Your task to perform on an android device: open app "VLC for Android" (install if not already installed), go to login, and select forgot password Image 0: 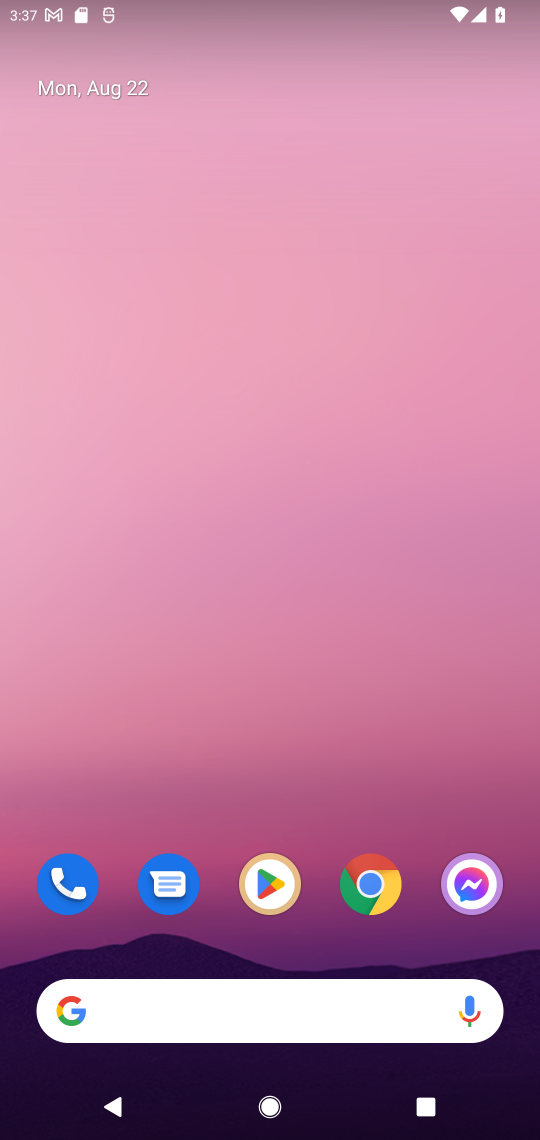
Step 0: click (275, 886)
Your task to perform on an android device: open app "VLC for Android" (install if not already installed), go to login, and select forgot password Image 1: 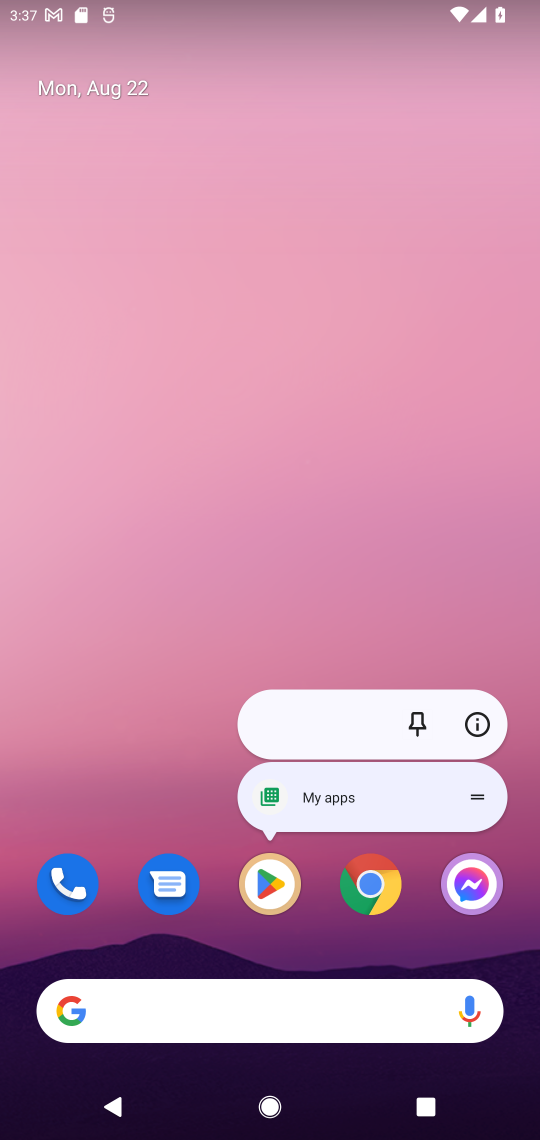
Step 1: click (273, 893)
Your task to perform on an android device: open app "VLC for Android" (install if not already installed), go to login, and select forgot password Image 2: 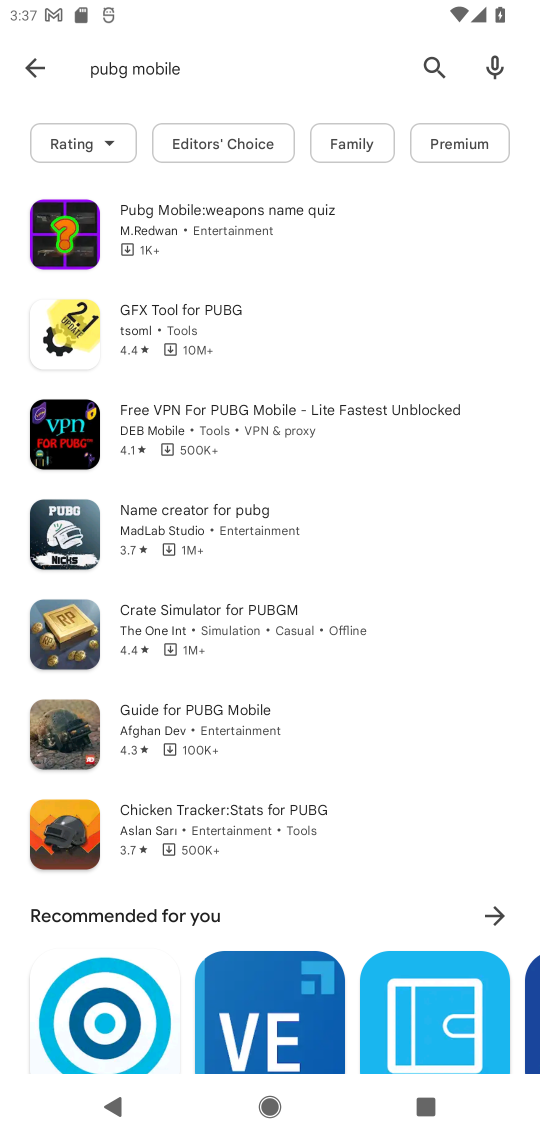
Step 2: click (203, 66)
Your task to perform on an android device: open app "VLC for Android" (install if not already installed), go to login, and select forgot password Image 3: 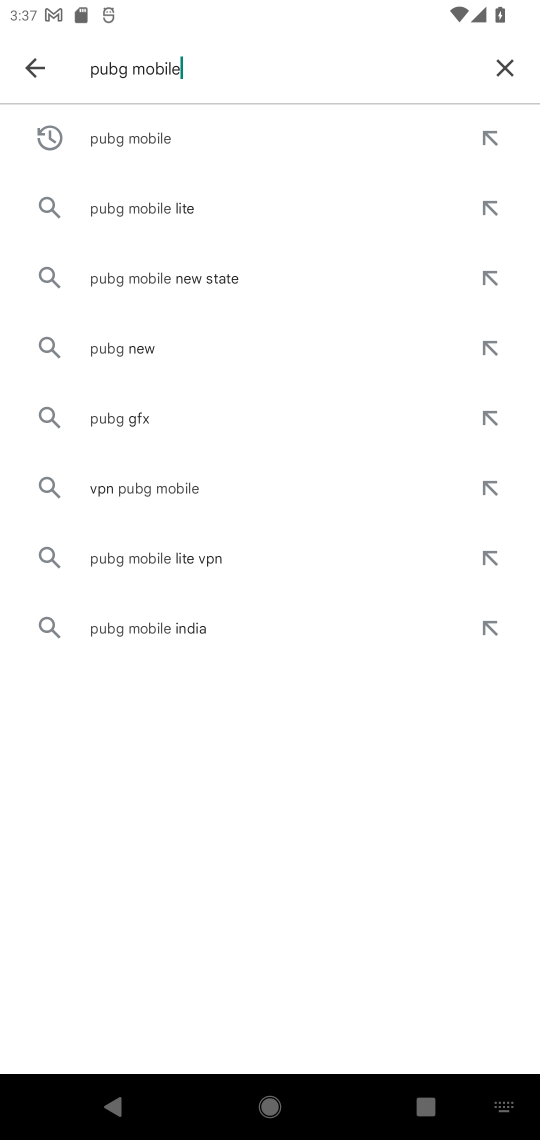
Step 3: click (505, 62)
Your task to perform on an android device: open app "VLC for Android" (install if not already installed), go to login, and select forgot password Image 4: 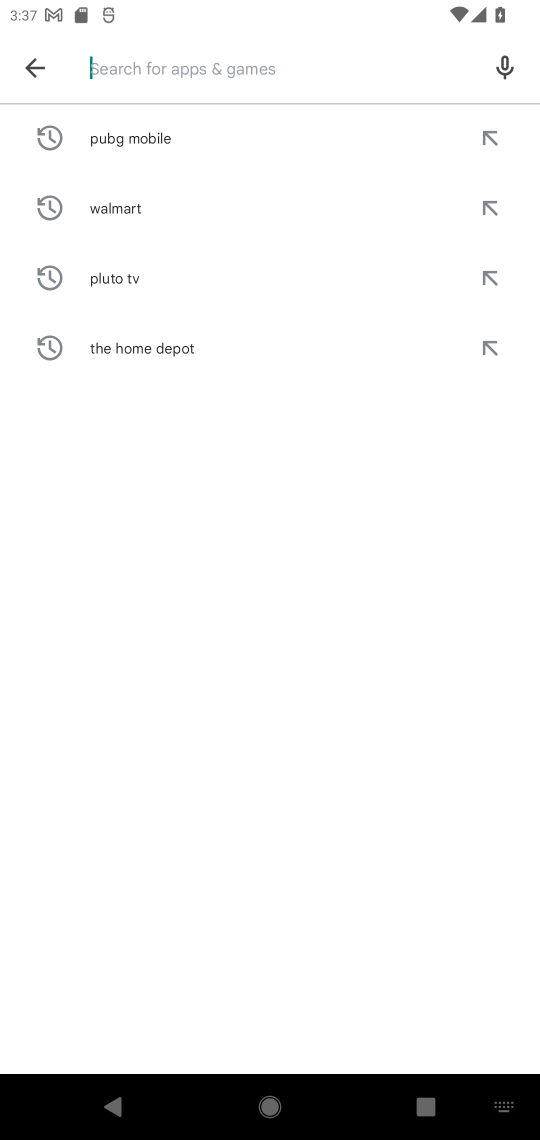
Step 4: type "vlc"
Your task to perform on an android device: open app "VLC for Android" (install if not already installed), go to login, and select forgot password Image 5: 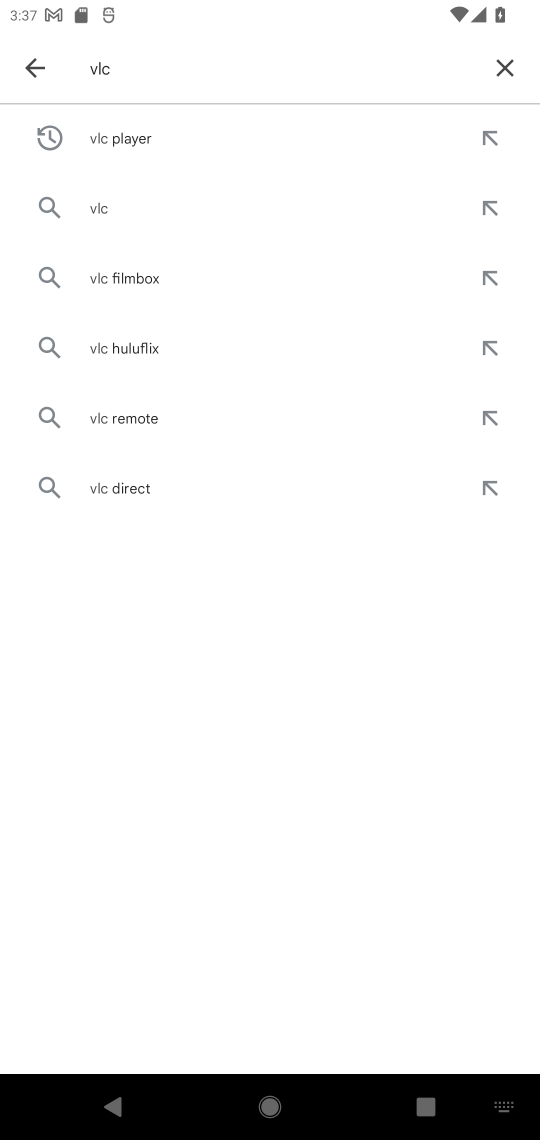
Step 5: click (115, 212)
Your task to perform on an android device: open app "VLC for Android" (install if not already installed), go to login, and select forgot password Image 6: 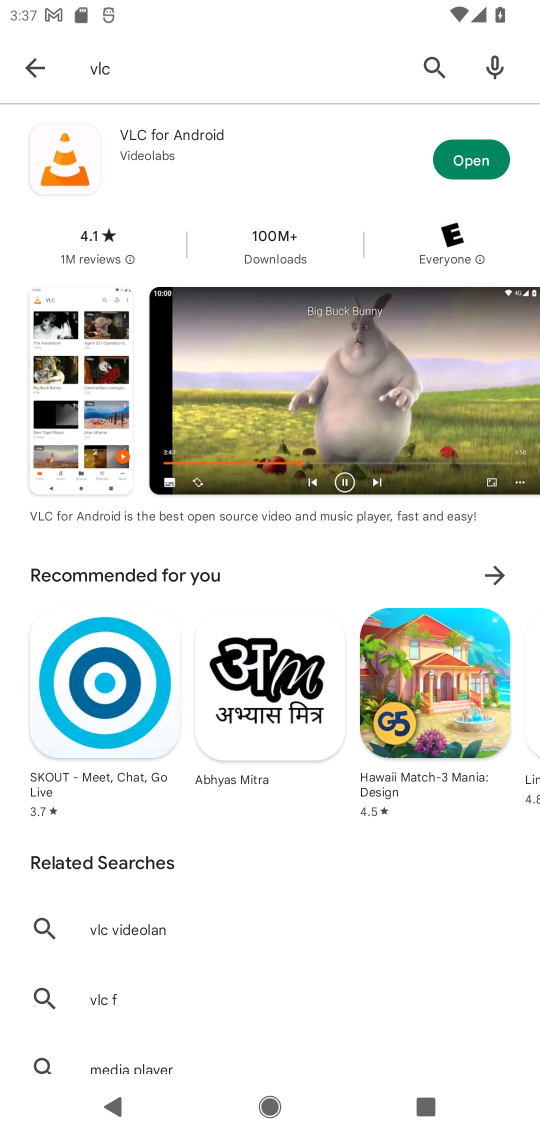
Step 6: click (480, 144)
Your task to perform on an android device: open app "VLC for Android" (install if not already installed), go to login, and select forgot password Image 7: 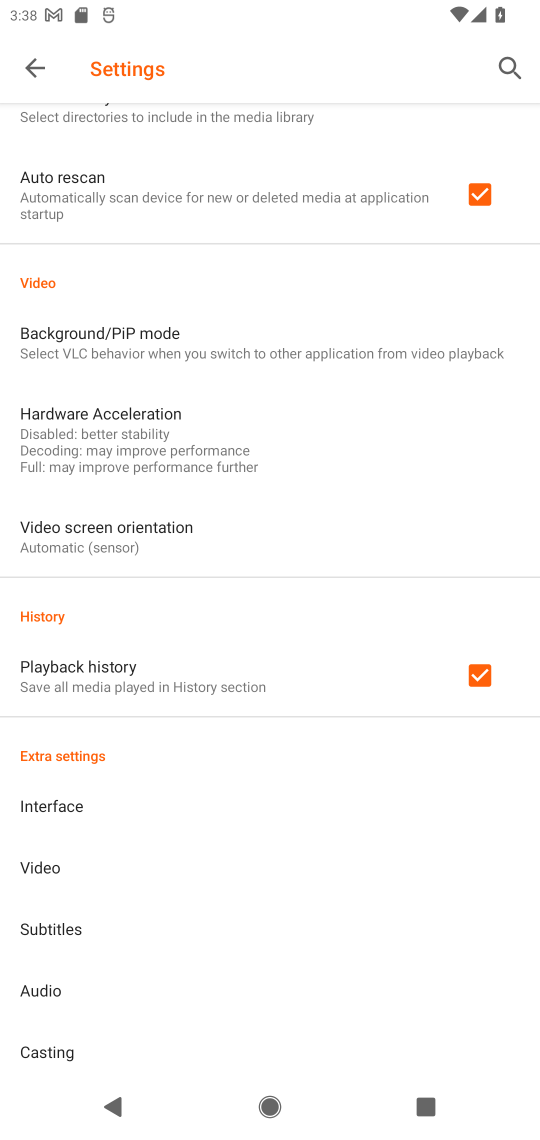
Step 7: drag from (191, 595) to (233, 2)
Your task to perform on an android device: open app "VLC for Android" (install if not already installed), go to login, and select forgot password Image 8: 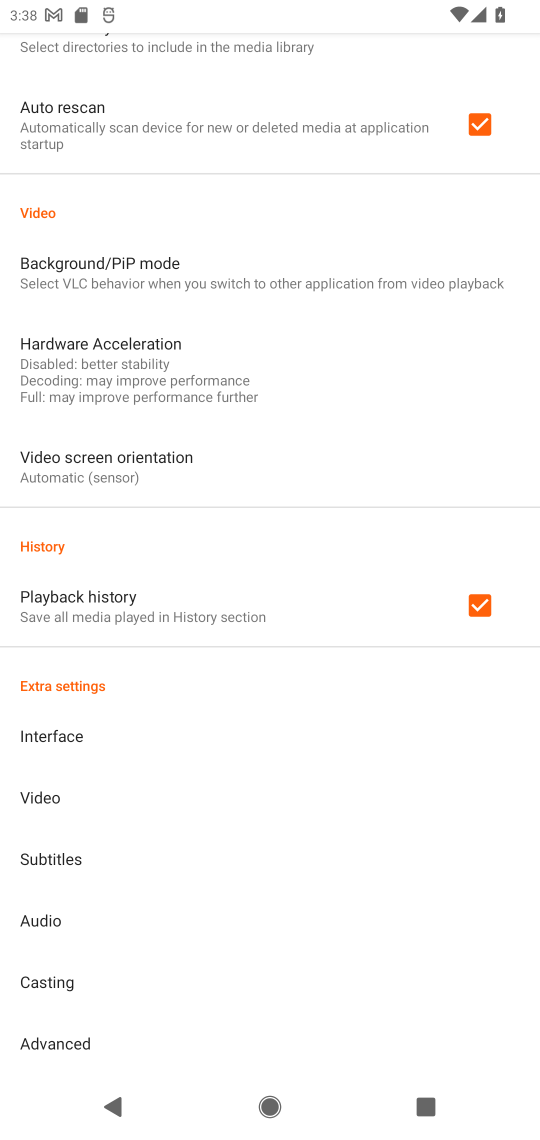
Step 8: drag from (160, 946) to (167, 400)
Your task to perform on an android device: open app "VLC for Android" (install if not already installed), go to login, and select forgot password Image 9: 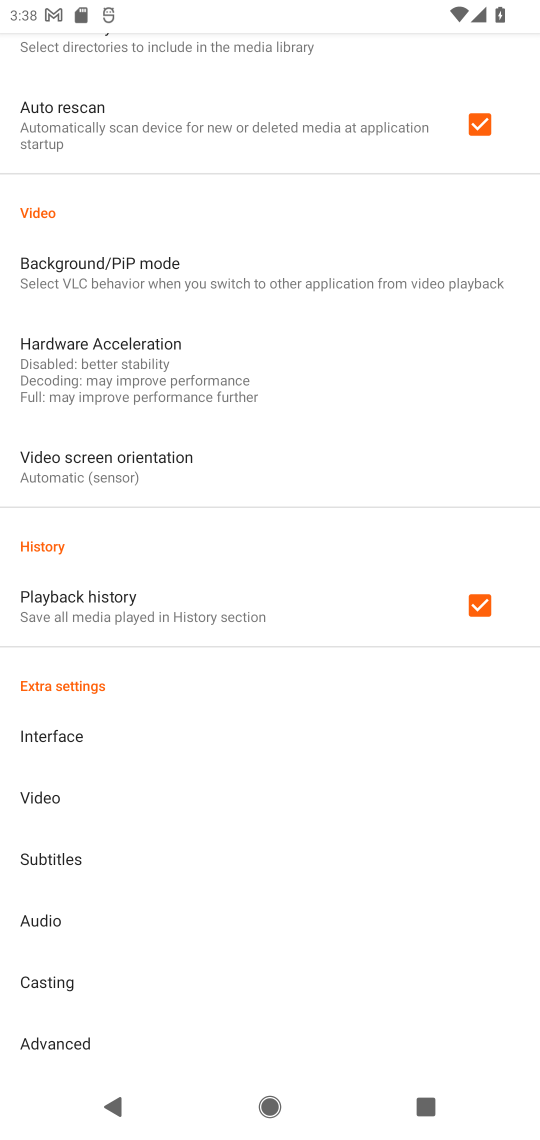
Step 9: drag from (162, 390) to (164, 1129)
Your task to perform on an android device: open app "VLC for Android" (install if not already installed), go to login, and select forgot password Image 10: 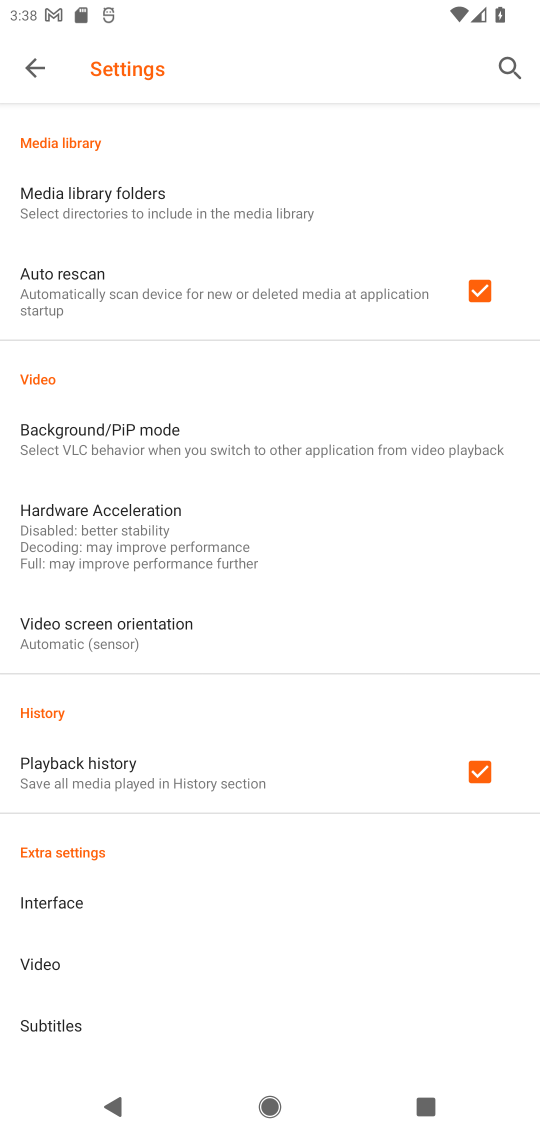
Step 10: click (35, 76)
Your task to perform on an android device: open app "VLC for Android" (install if not already installed), go to login, and select forgot password Image 11: 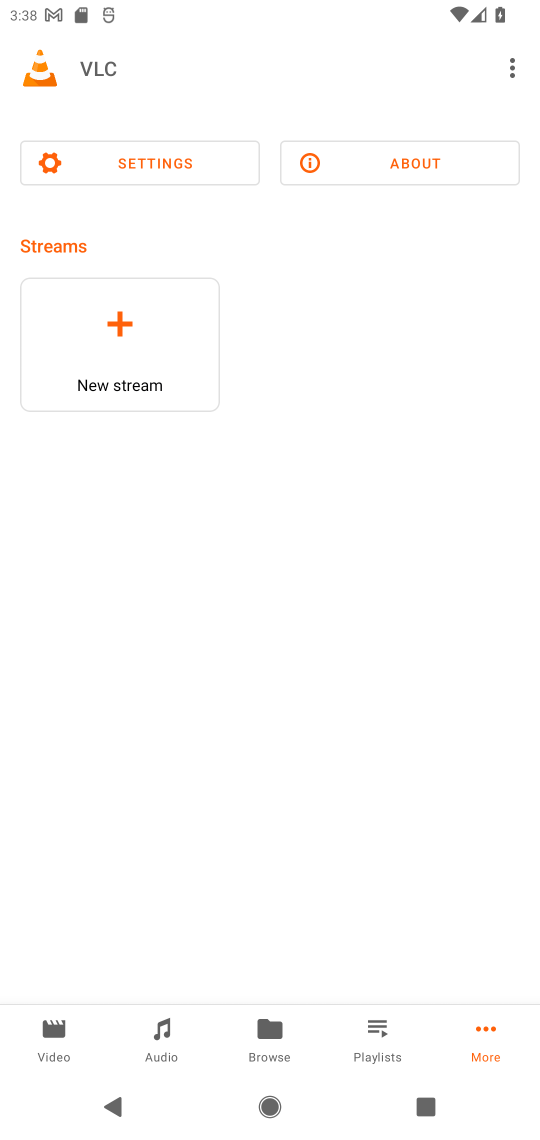
Step 11: click (484, 1036)
Your task to perform on an android device: open app "VLC for Android" (install if not already installed), go to login, and select forgot password Image 12: 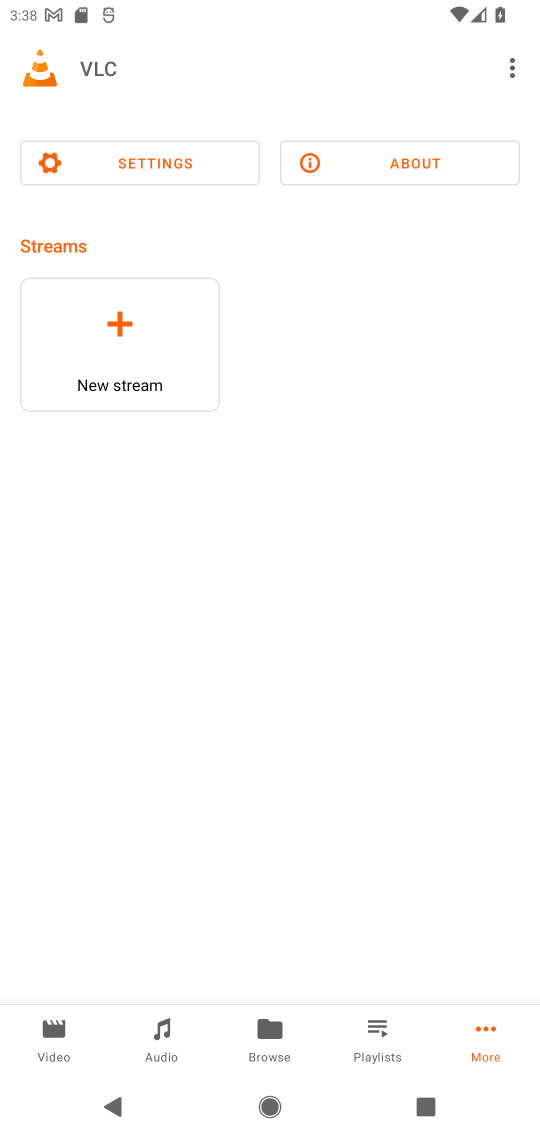
Step 12: click (511, 61)
Your task to perform on an android device: open app "VLC for Android" (install if not already installed), go to login, and select forgot password Image 13: 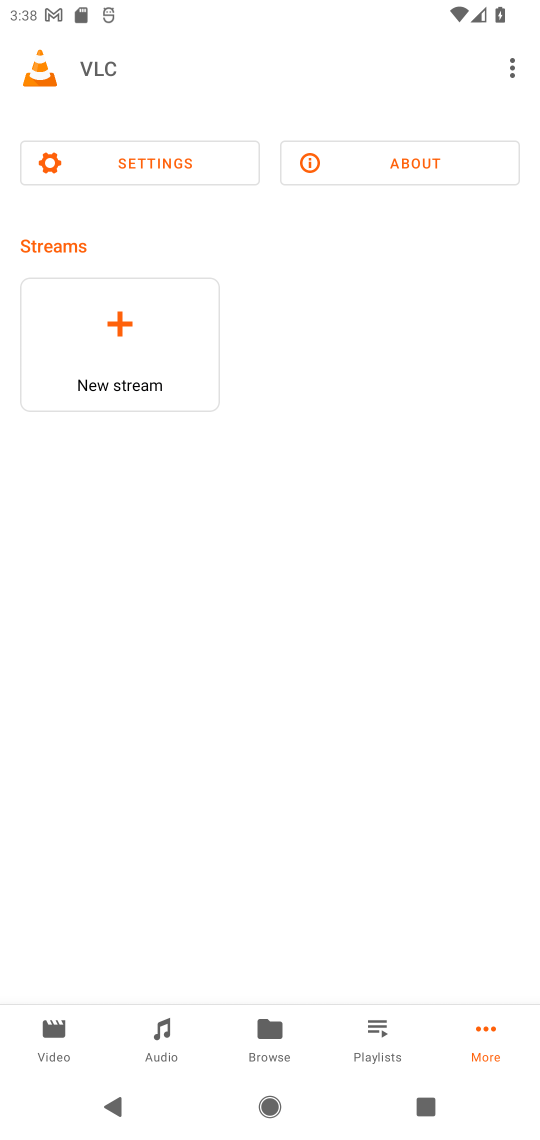
Step 13: click (514, 57)
Your task to perform on an android device: open app "VLC for Android" (install if not already installed), go to login, and select forgot password Image 14: 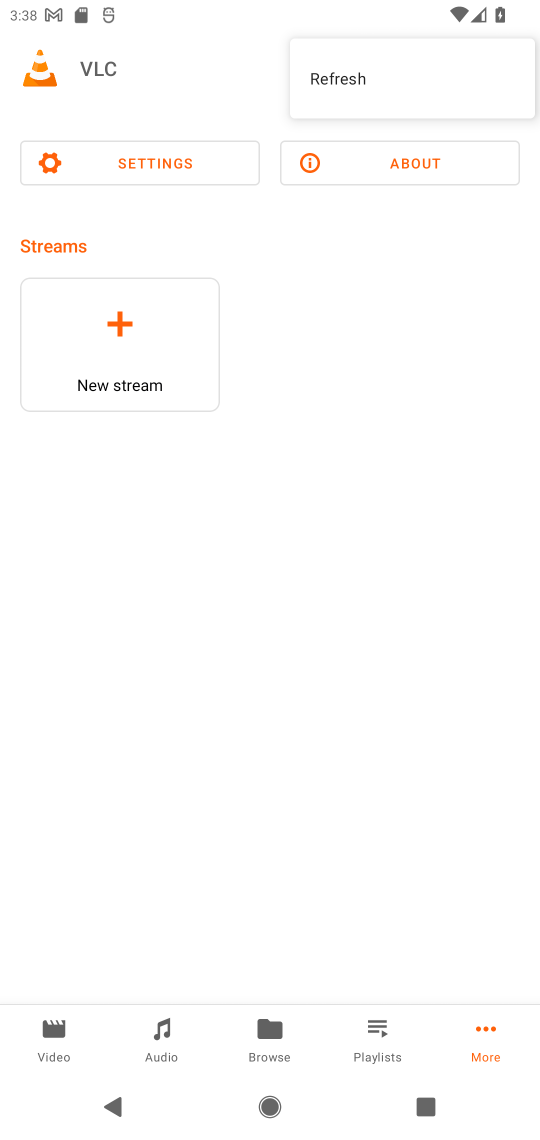
Step 14: task complete